Your task to perform on an android device: Turn on the flashlight Image 0: 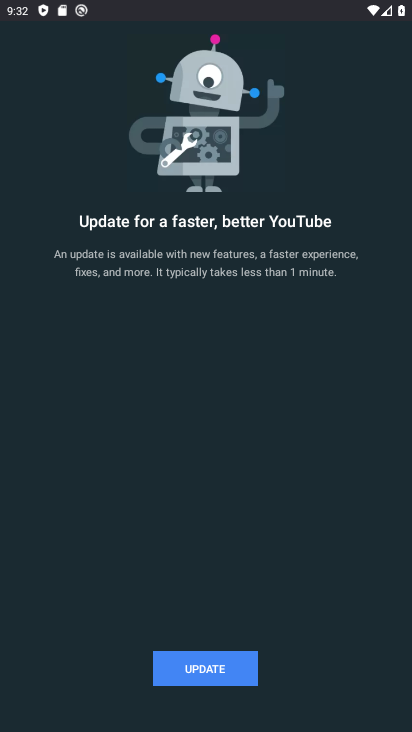
Step 0: press home button
Your task to perform on an android device: Turn on the flashlight Image 1: 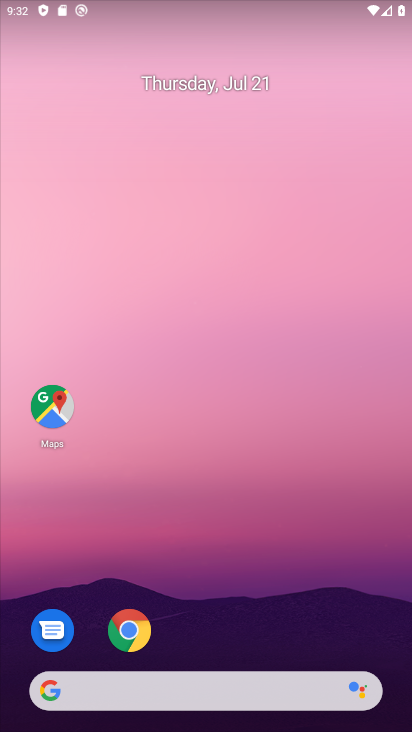
Step 1: drag from (269, 612) to (228, 16)
Your task to perform on an android device: Turn on the flashlight Image 2: 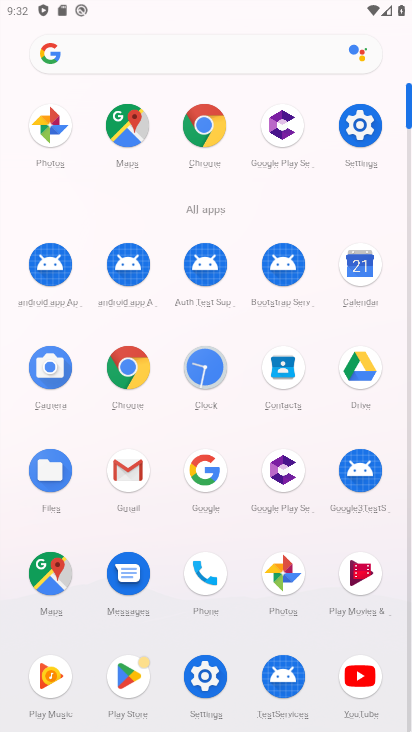
Step 2: click (207, 676)
Your task to perform on an android device: Turn on the flashlight Image 3: 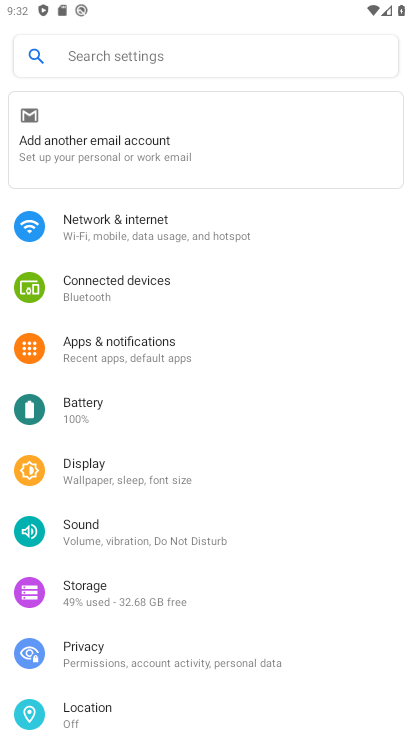
Step 3: task complete